Your task to perform on an android device: toggle notification dots Image 0: 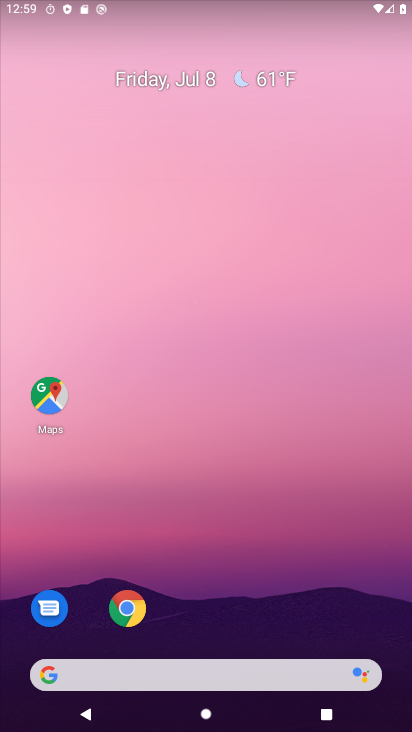
Step 0: drag from (197, 619) to (192, 132)
Your task to perform on an android device: toggle notification dots Image 1: 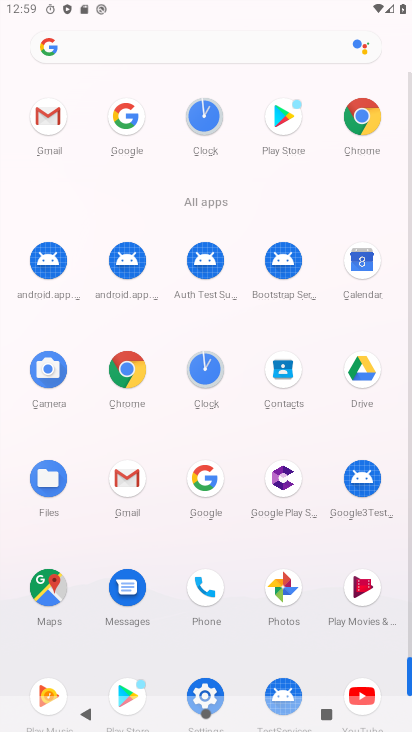
Step 1: click (203, 687)
Your task to perform on an android device: toggle notification dots Image 2: 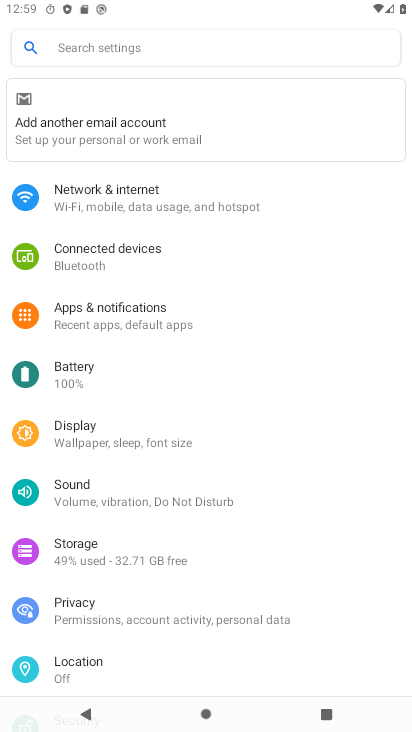
Step 2: click (132, 321)
Your task to perform on an android device: toggle notification dots Image 3: 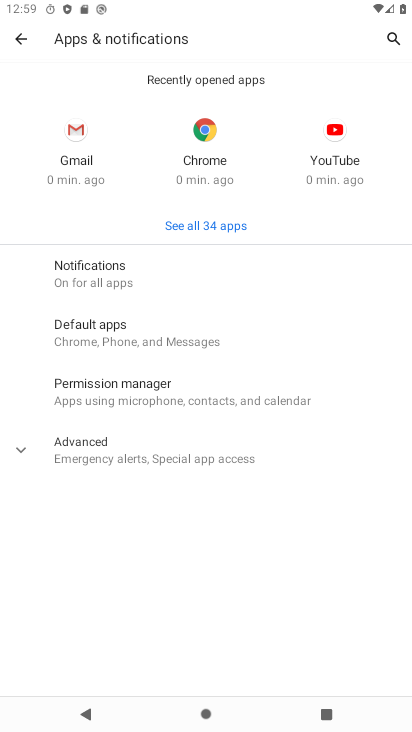
Step 3: click (93, 266)
Your task to perform on an android device: toggle notification dots Image 4: 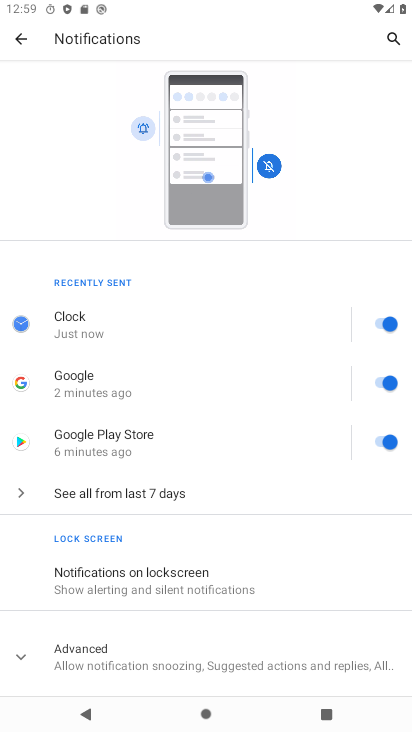
Step 4: drag from (241, 638) to (288, 233)
Your task to perform on an android device: toggle notification dots Image 5: 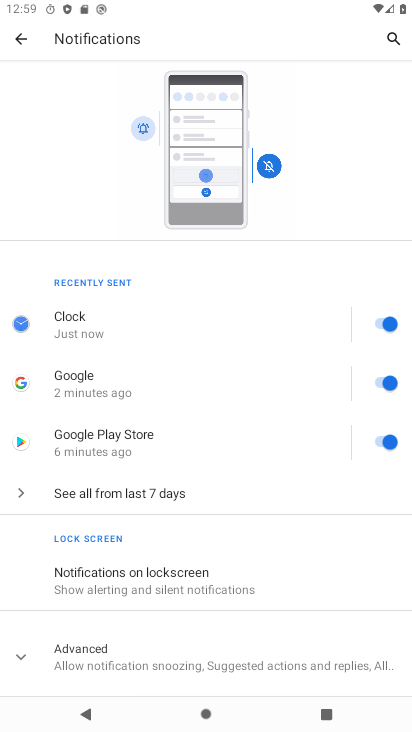
Step 5: click (69, 658)
Your task to perform on an android device: toggle notification dots Image 6: 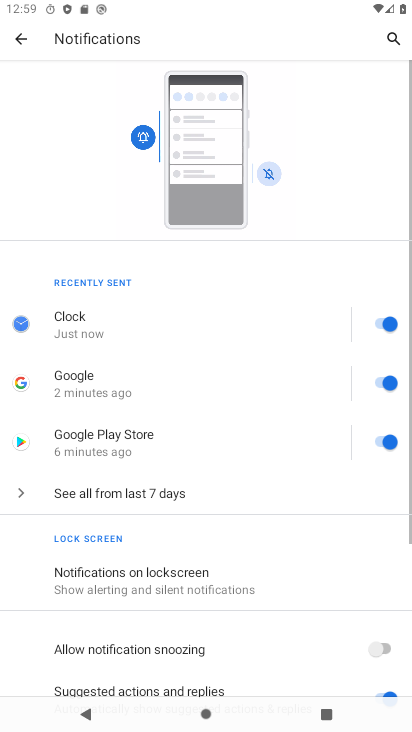
Step 6: drag from (263, 637) to (304, 193)
Your task to perform on an android device: toggle notification dots Image 7: 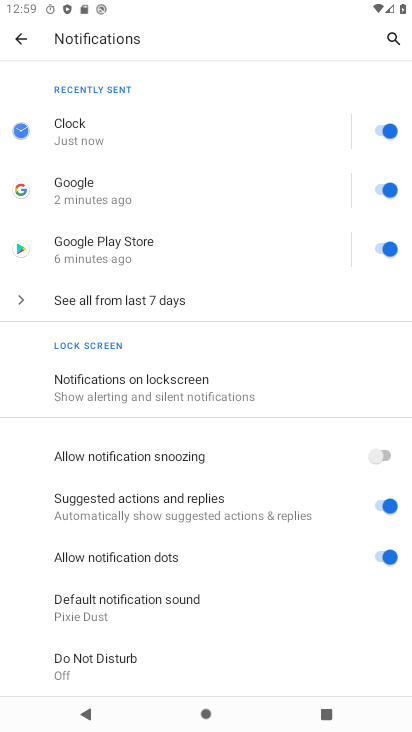
Step 7: click (388, 555)
Your task to perform on an android device: toggle notification dots Image 8: 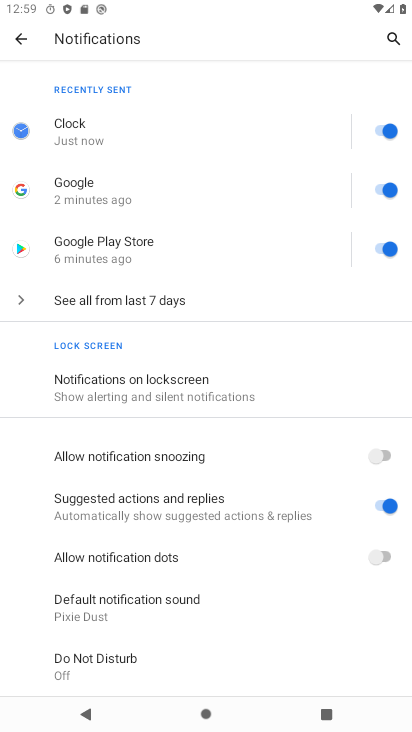
Step 8: task complete